Your task to perform on an android device: What's the weather? Image 0: 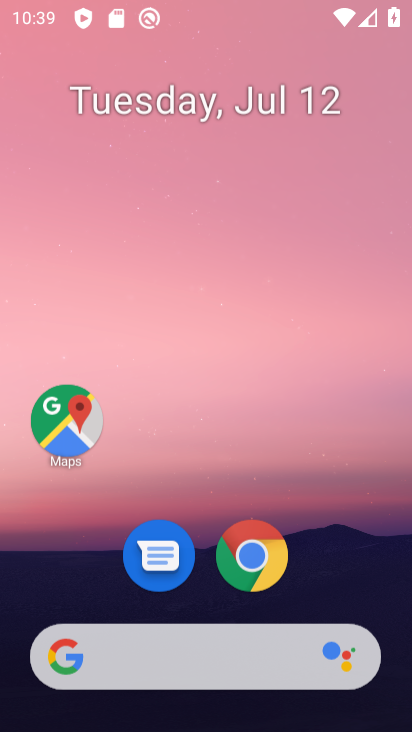
Step 0: drag from (199, 293) to (198, 226)
Your task to perform on an android device: What's the weather? Image 1: 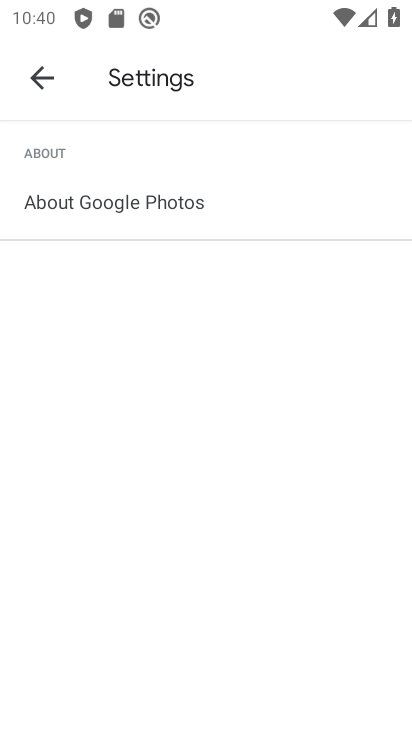
Step 1: press back button
Your task to perform on an android device: What's the weather? Image 2: 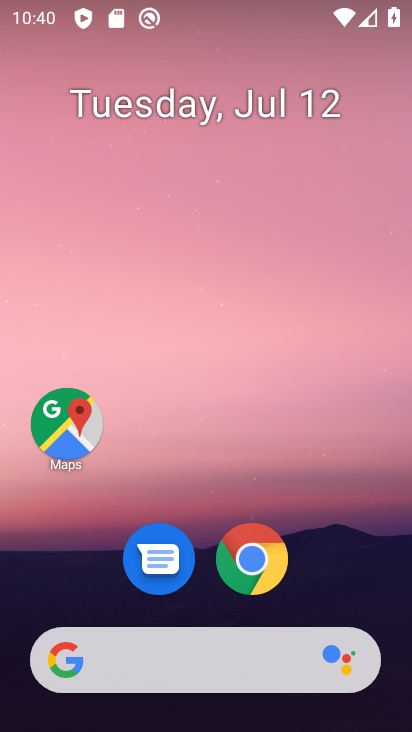
Step 2: drag from (225, 684) to (200, 150)
Your task to perform on an android device: What's the weather? Image 3: 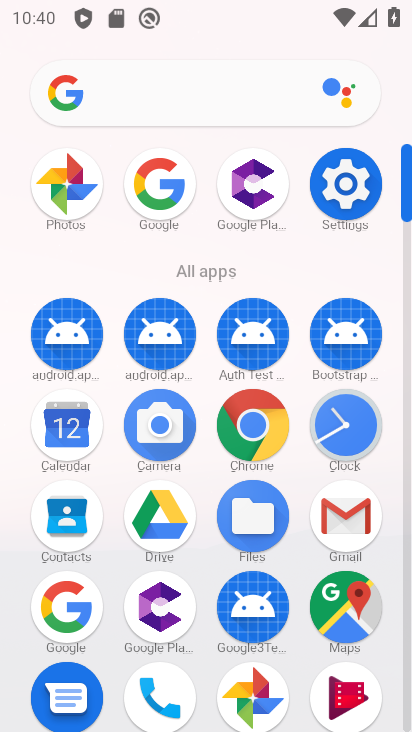
Step 3: click (67, 614)
Your task to perform on an android device: What's the weather? Image 4: 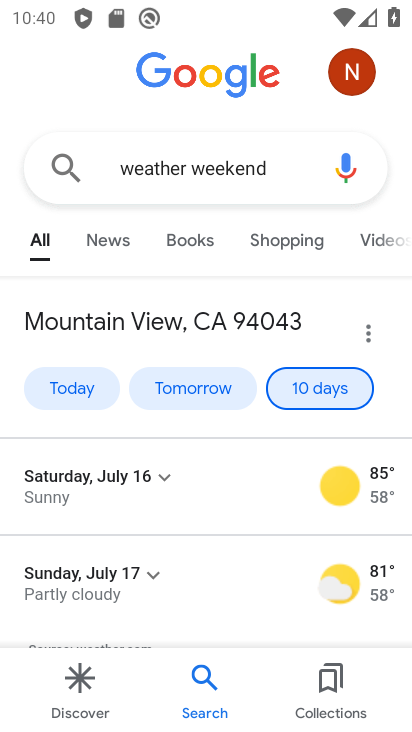
Step 4: click (283, 176)
Your task to perform on an android device: What's the weather? Image 5: 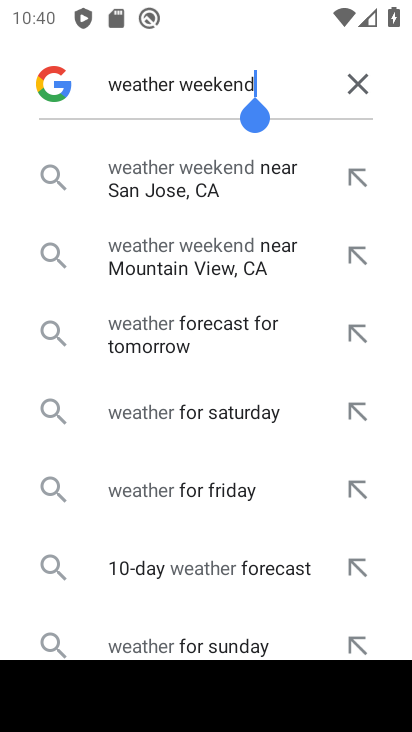
Step 5: click (374, 80)
Your task to perform on an android device: What's the weather? Image 6: 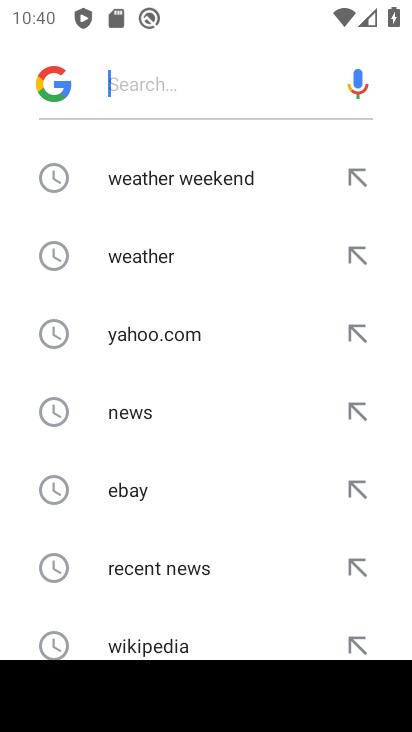
Step 6: click (201, 257)
Your task to perform on an android device: What's the weather? Image 7: 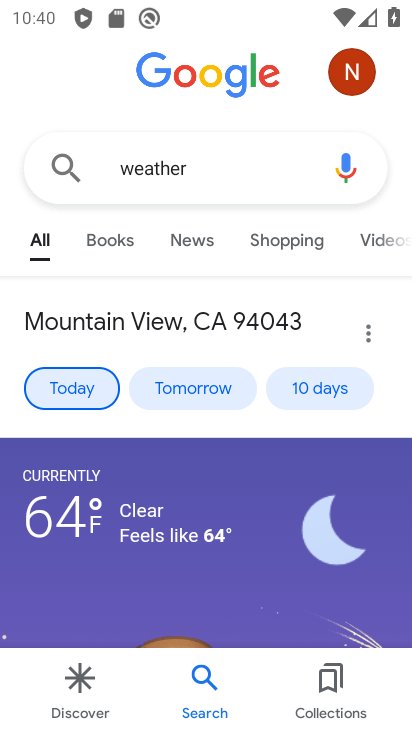
Step 7: task complete